Your task to perform on an android device: read, delete, or share a saved page in the chrome app Image 0: 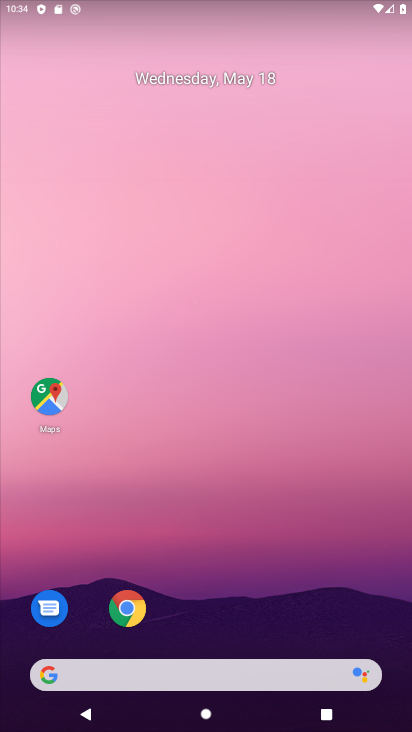
Step 0: press home button
Your task to perform on an android device: read, delete, or share a saved page in the chrome app Image 1: 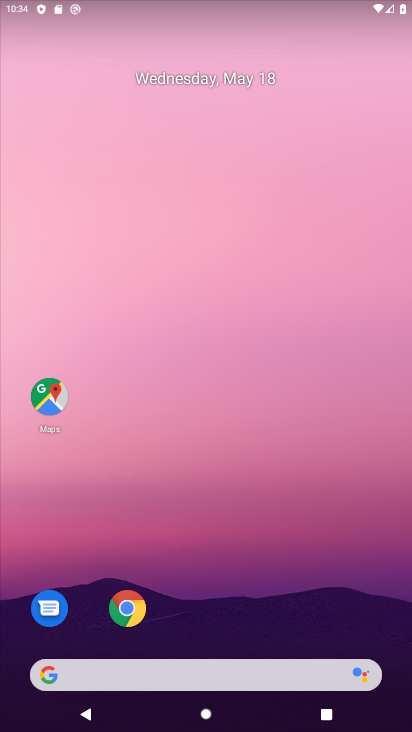
Step 1: click (132, 599)
Your task to perform on an android device: read, delete, or share a saved page in the chrome app Image 2: 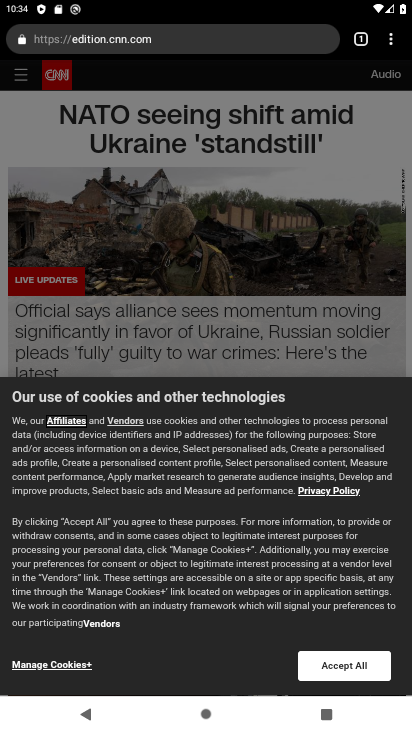
Step 2: drag from (387, 44) to (306, 436)
Your task to perform on an android device: read, delete, or share a saved page in the chrome app Image 3: 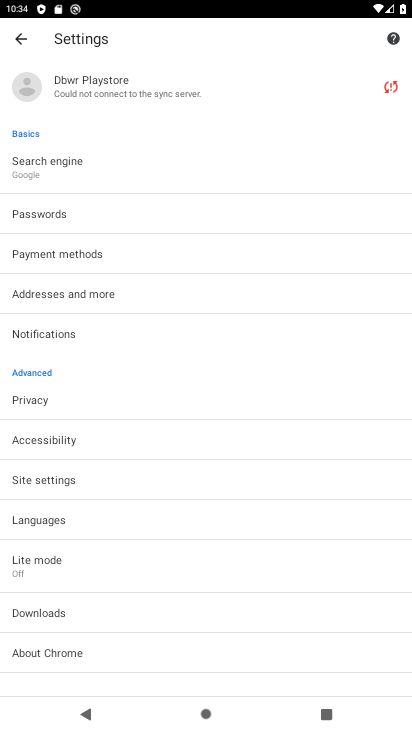
Step 3: click (20, 31)
Your task to perform on an android device: read, delete, or share a saved page in the chrome app Image 4: 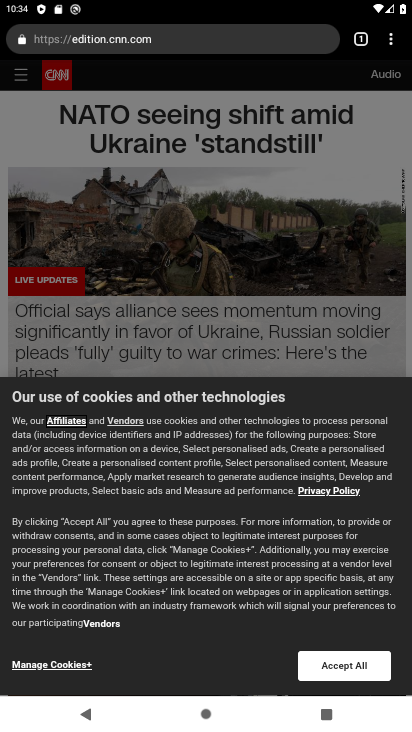
Step 4: drag from (384, 36) to (285, 259)
Your task to perform on an android device: read, delete, or share a saved page in the chrome app Image 5: 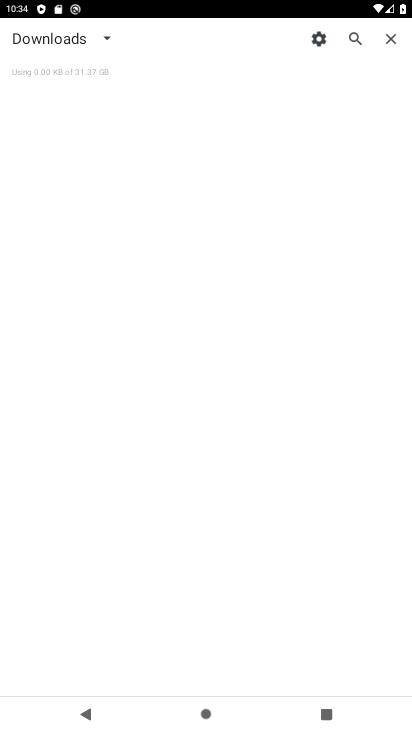
Step 5: click (103, 44)
Your task to perform on an android device: read, delete, or share a saved page in the chrome app Image 6: 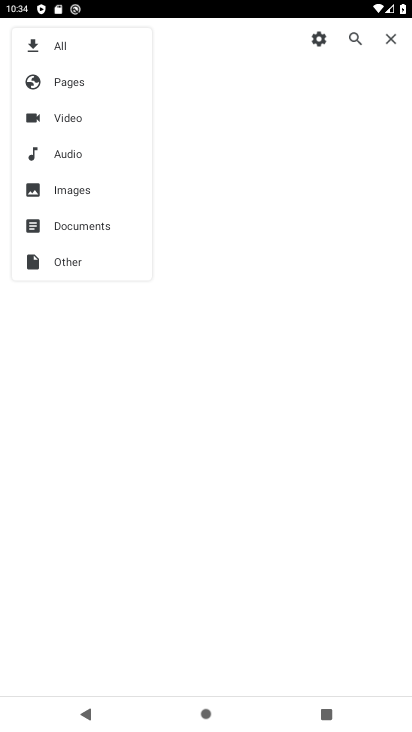
Step 6: click (89, 86)
Your task to perform on an android device: read, delete, or share a saved page in the chrome app Image 7: 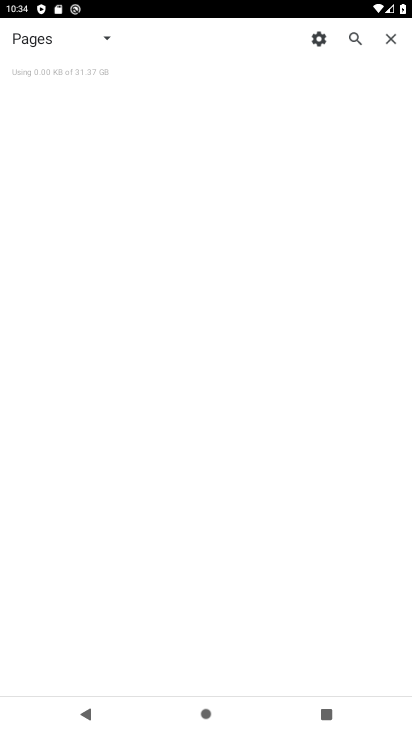
Step 7: task complete